Your task to perform on an android device: Open display settings Image 0: 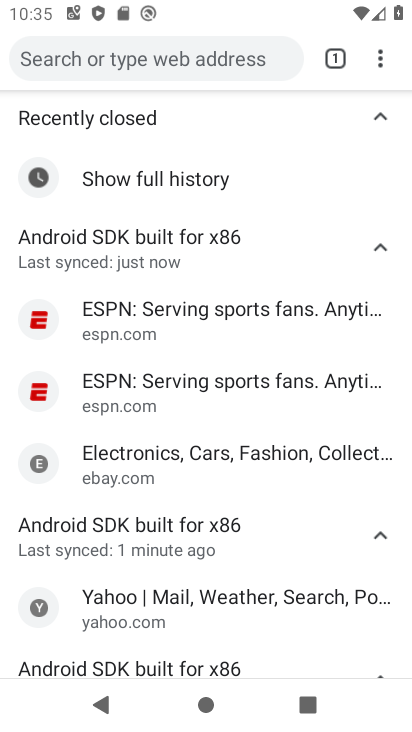
Step 0: press home button
Your task to perform on an android device: Open display settings Image 1: 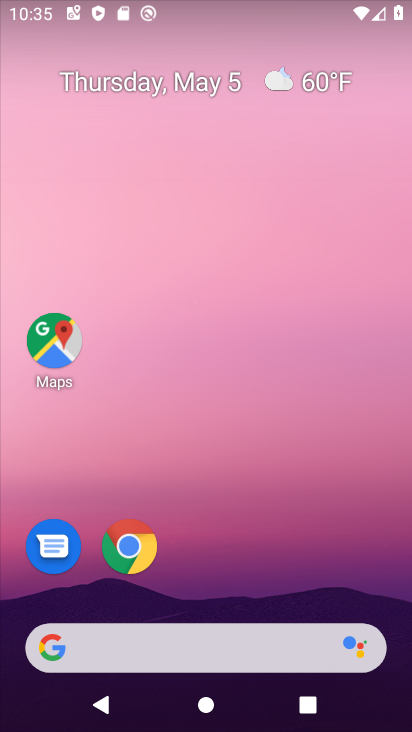
Step 1: drag from (264, 602) to (306, 222)
Your task to perform on an android device: Open display settings Image 2: 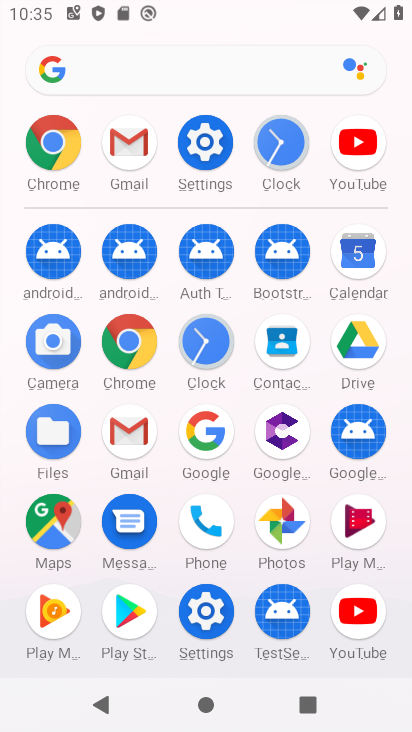
Step 2: click (199, 154)
Your task to perform on an android device: Open display settings Image 3: 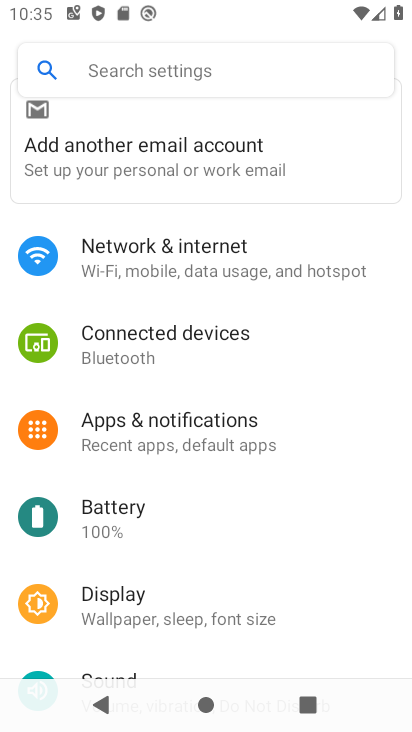
Step 3: click (151, 598)
Your task to perform on an android device: Open display settings Image 4: 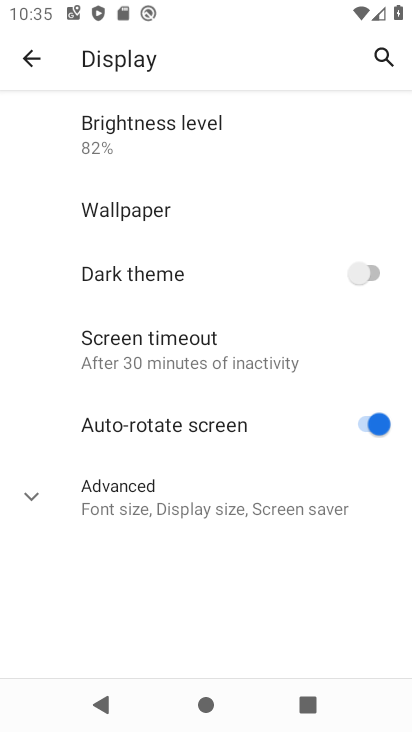
Step 4: task complete